Your task to perform on an android device: Search for a new grill on Home Depot Image 0: 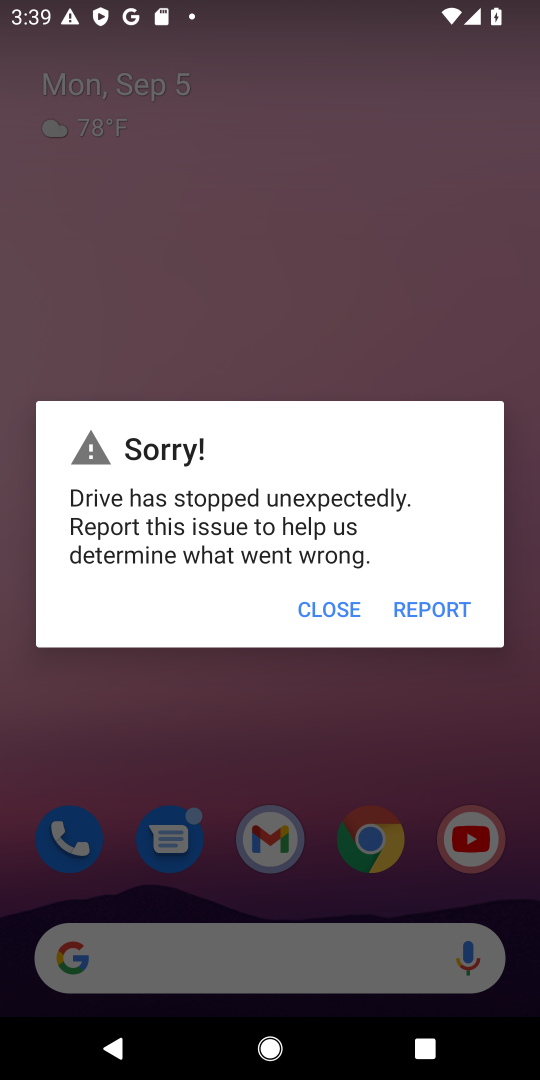
Step 0: click (343, 594)
Your task to perform on an android device: Search for a new grill on Home Depot Image 1: 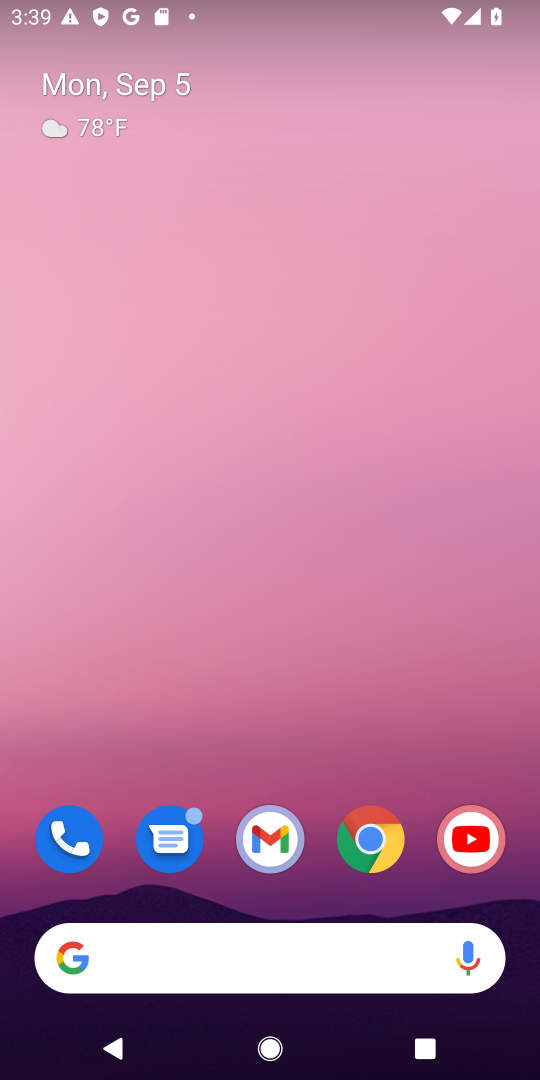
Step 1: click (212, 949)
Your task to perform on an android device: Search for a new grill on Home Depot Image 2: 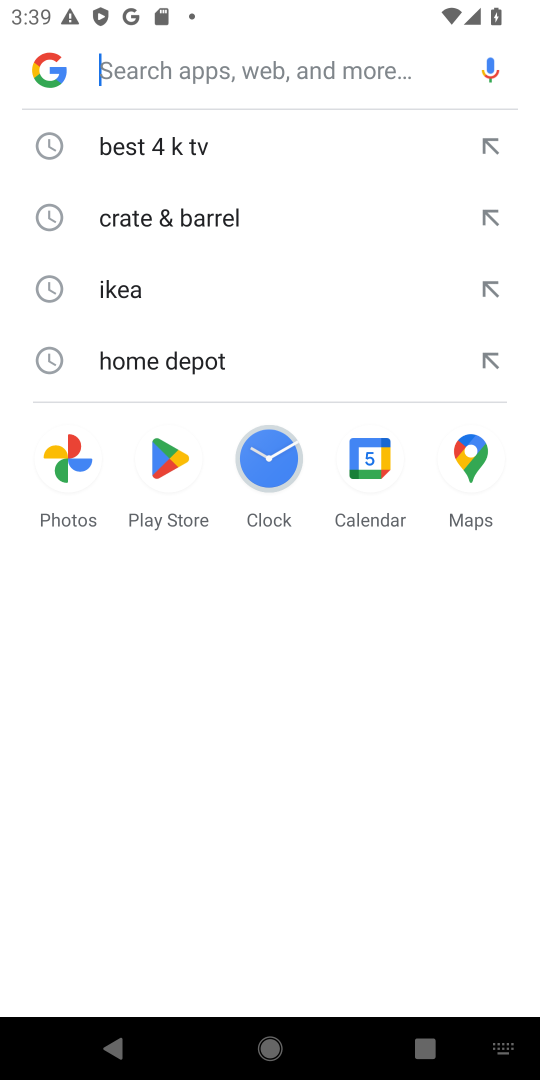
Step 2: click (238, 360)
Your task to perform on an android device: Search for a new grill on Home Depot Image 3: 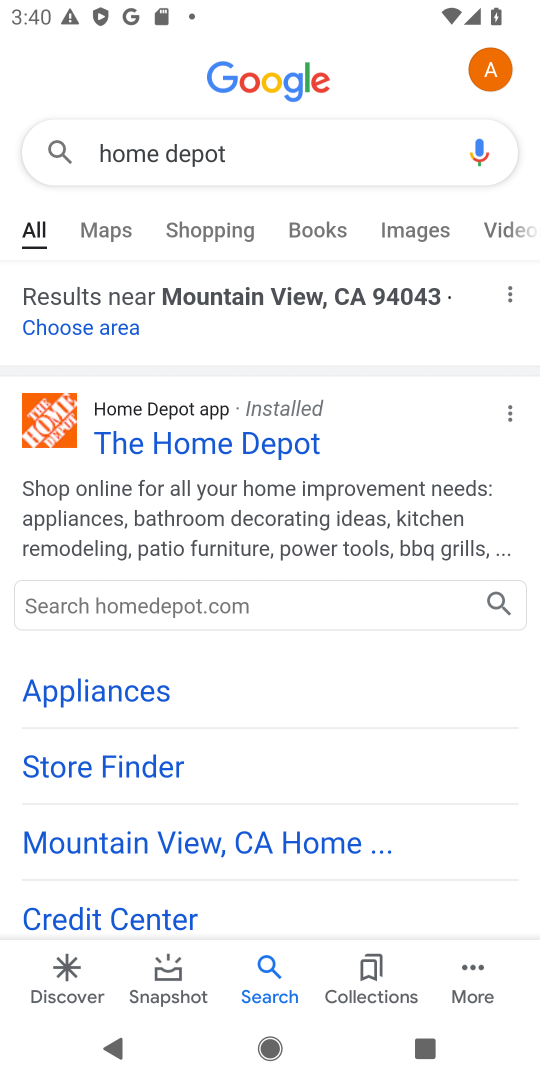
Step 3: drag from (300, 714) to (312, 427)
Your task to perform on an android device: Search for a new grill on Home Depot Image 4: 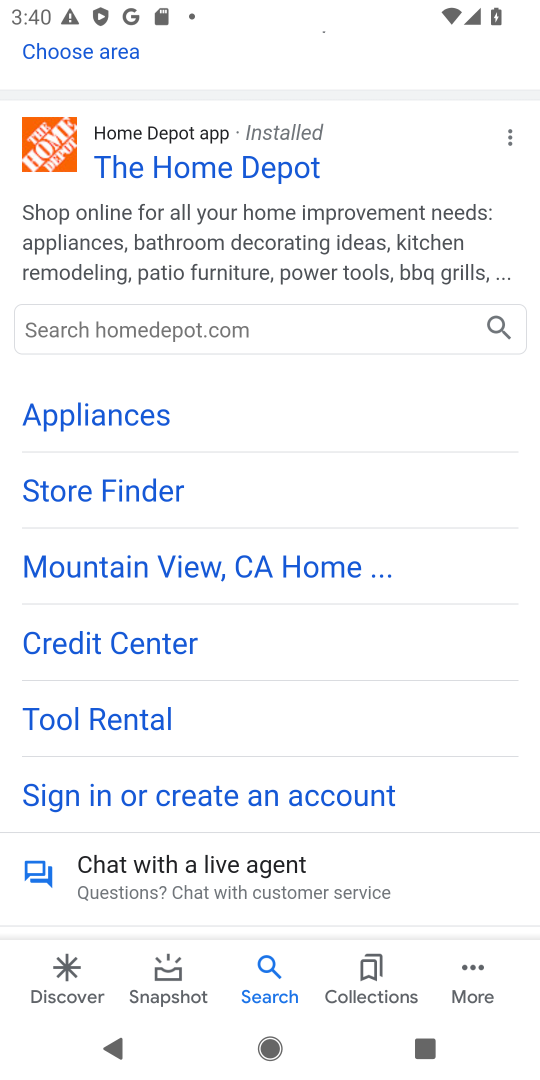
Step 4: click (128, 489)
Your task to perform on an android device: Search for a new grill on Home Depot Image 5: 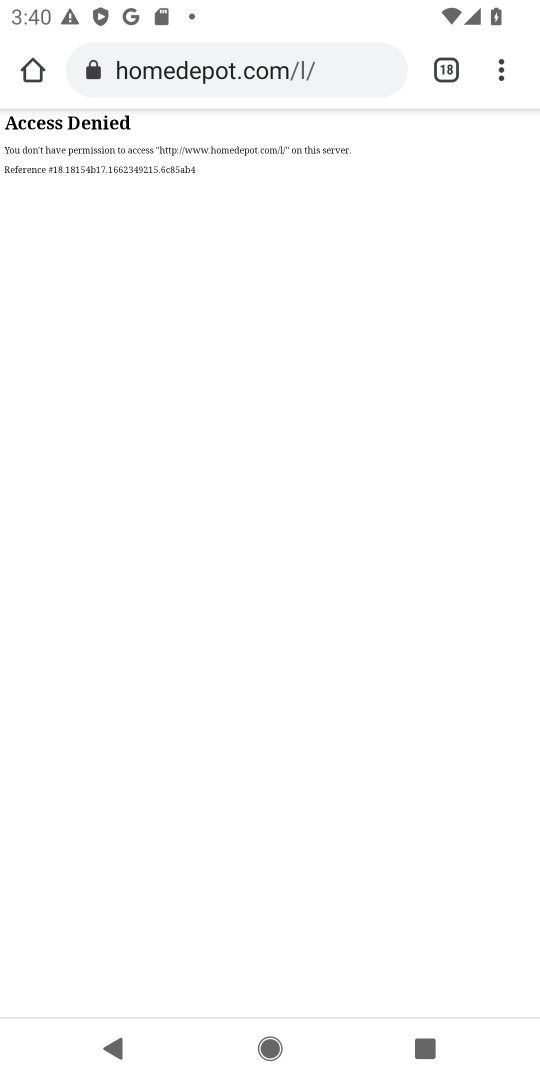
Step 5: task complete